Your task to perform on an android device: Go to notification settings Image 0: 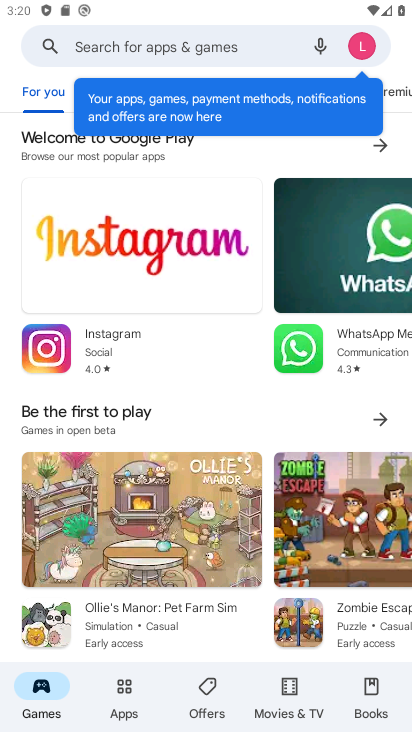
Step 0: press home button
Your task to perform on an android device: Go to notification settings Image 1: 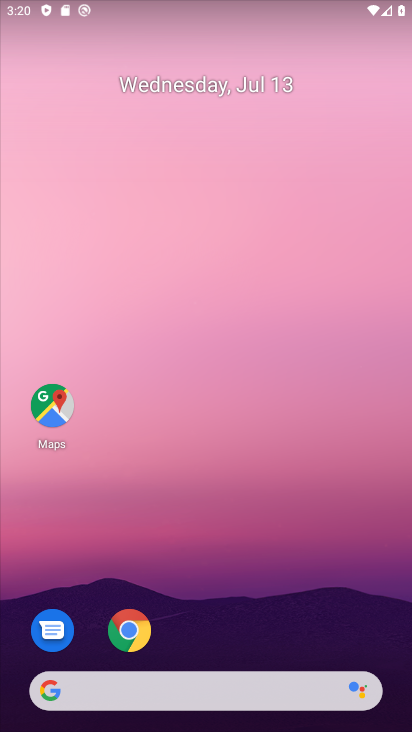
Step 1: drag from (222, 571) to (239, 2)
Your task to perform on an android device: Go to notification settings Image 2: 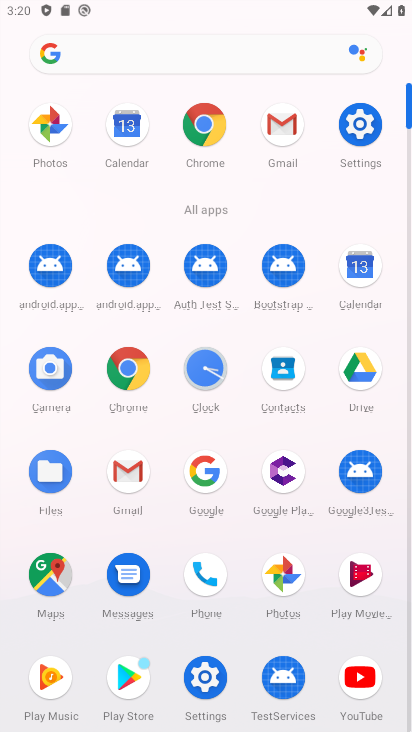
Step 2: click (361, 123)
Your task to perform on an android device: Go to notification settings Image 3: 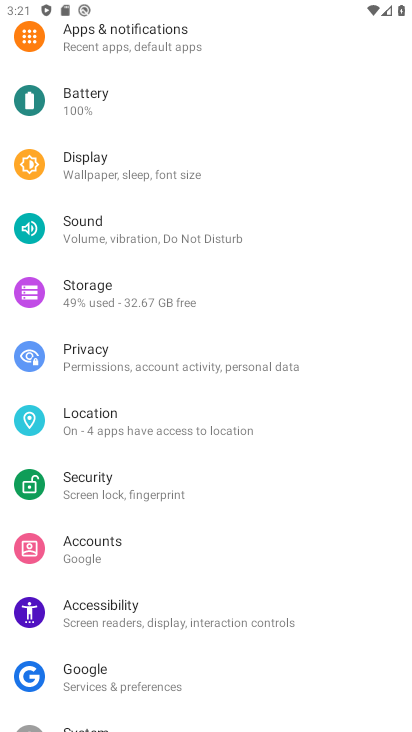
Step 3: click (142, 30)
Your task to perform on an android device: Go to notification settings Image 4: 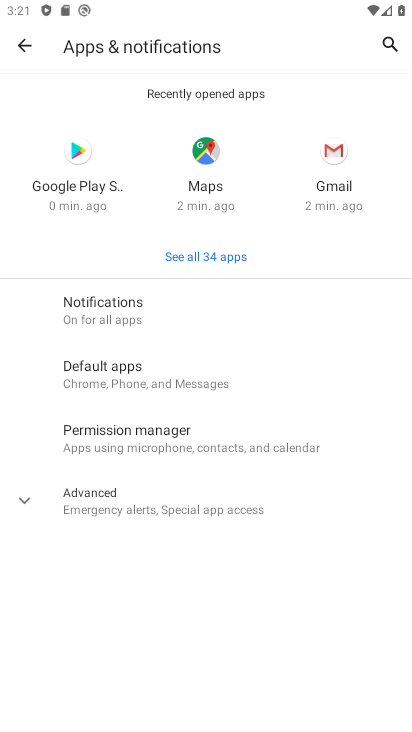
Step 4: task complete